Your task to perform on an android device: turn on the 24-hour format for clock Image 0: 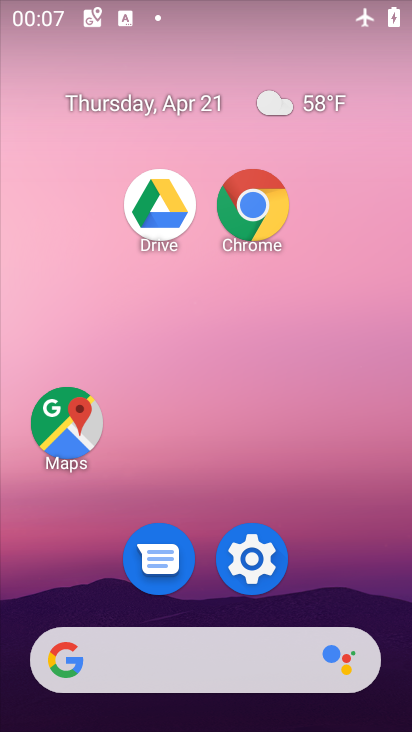
Step 0: click (250, 559)
Your task to perform on an android device: turn on the 24-hour format for clock Image 1: 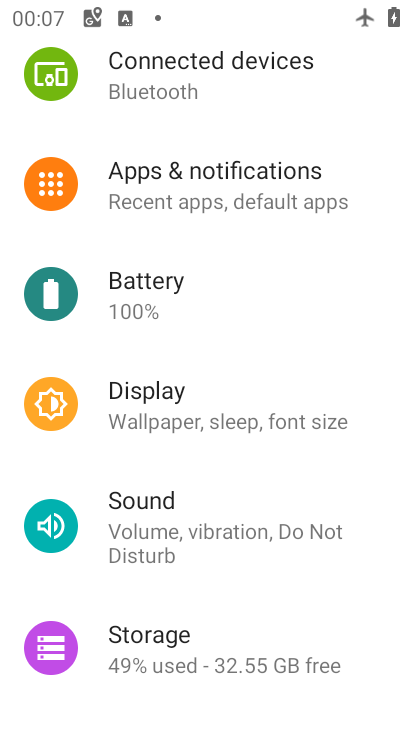
Step 1: press back button
Your task to perform on an android device: turn on the 24-hour format for clock Image 2: 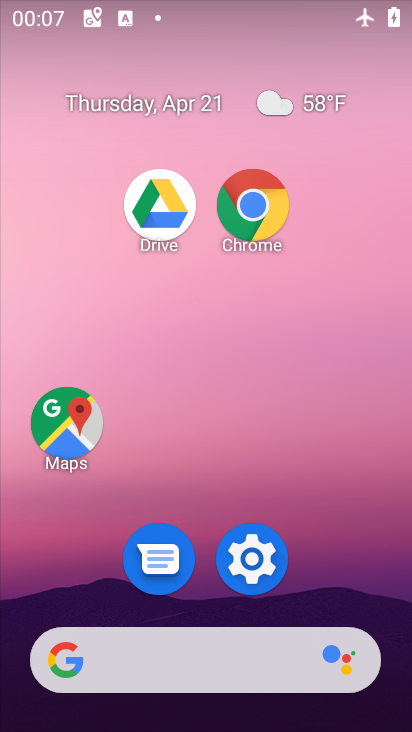
Step 2: drag from (278, 602) to (258, 118)
Your task to perform on an android device: turn on the 24-hour format for clock Image 3: 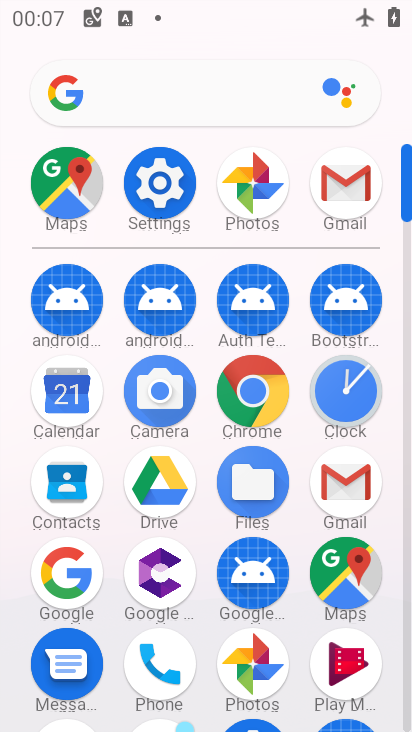
Step 3: click (361, 391)
Your task to perform on an android device: turn on the 24-hour format for clock Image 4: 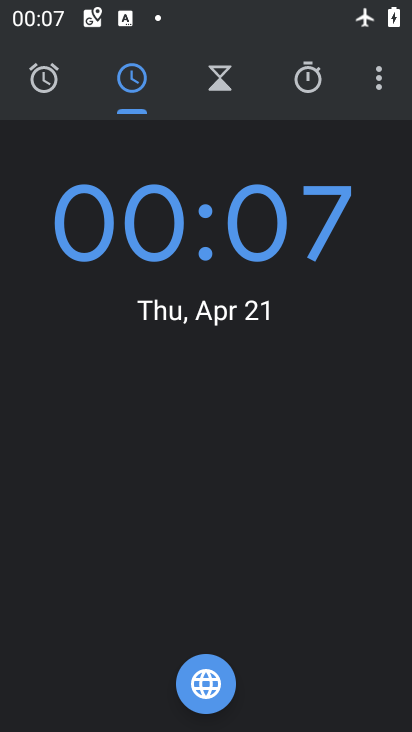
Step 4: click (371, 77)
Your task to perform on an android device: turn on the 24-hour format for clock Image 5: 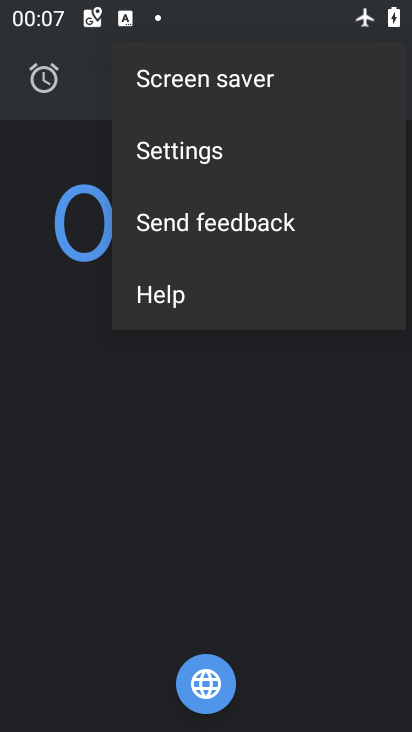
Step 5: click (180, 148)
Your task to perform on an android device: turn on the 24-hour format for clock Image 6: 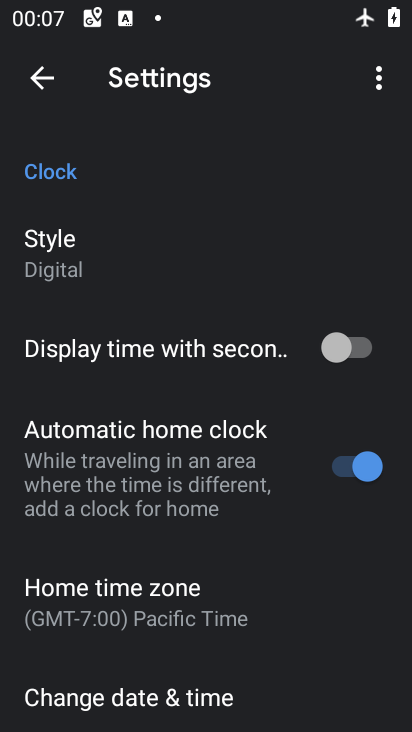
Step 6: drag from (186, 645) to (210, 310)
Your task to perform on an android device: turn on the 24-hour format for clock Image 7: 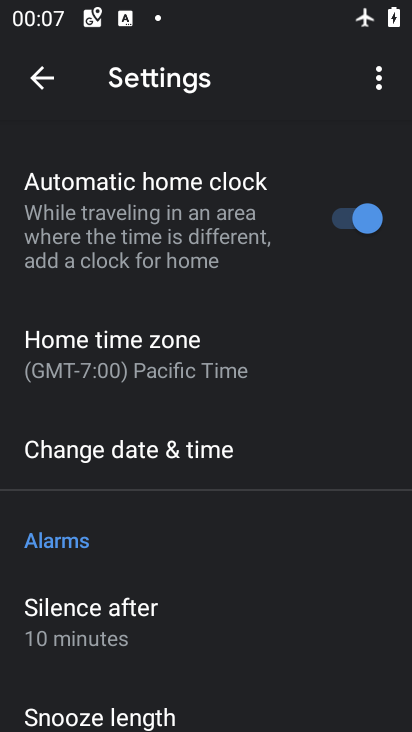
Step 7: click (170, 458)
Your task to perform on an android device: turn on the 24-hour format for clock Image 8: 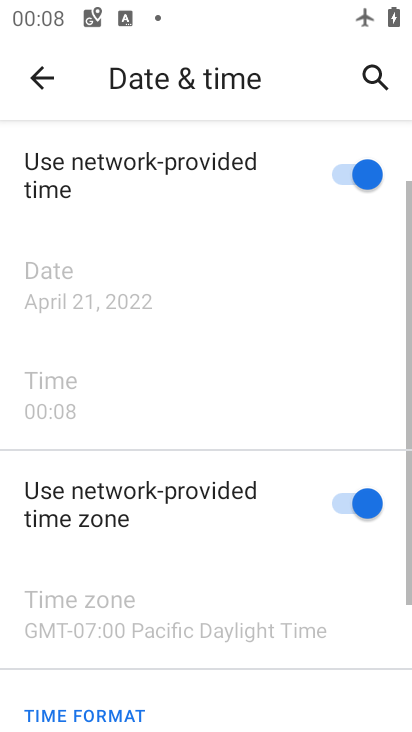
Step 8: task complete